Your task to perform on an android device: toggle sleep mode Image 0: 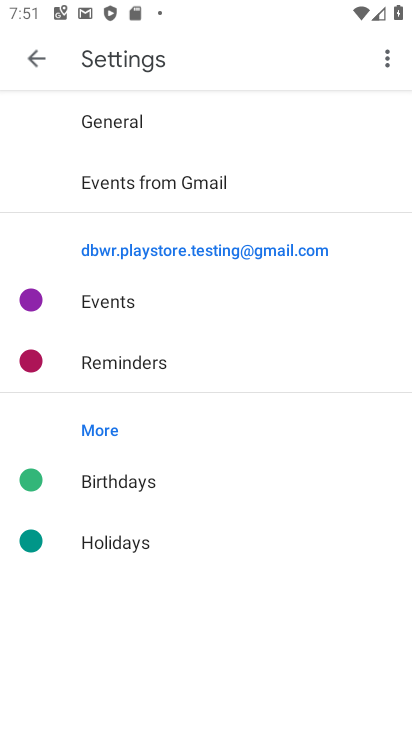
Step 0: press home button
Your task to perform on an android device: toggle sleep mode Image 1: 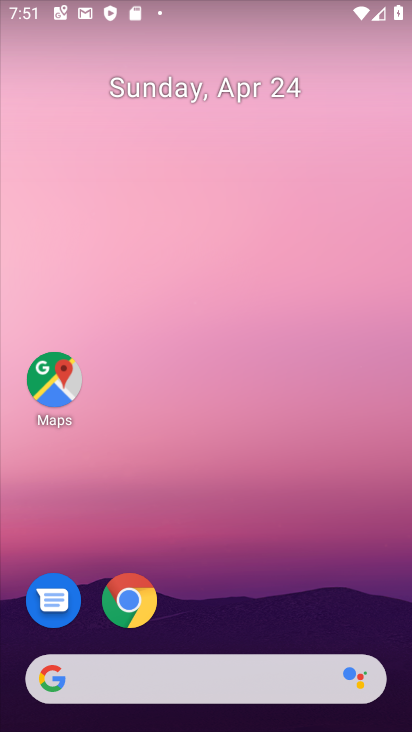
Step 1: drag from (234, 675) to (234, 157)
Your task to perform on an android device: toggle sleep mode Image 2: 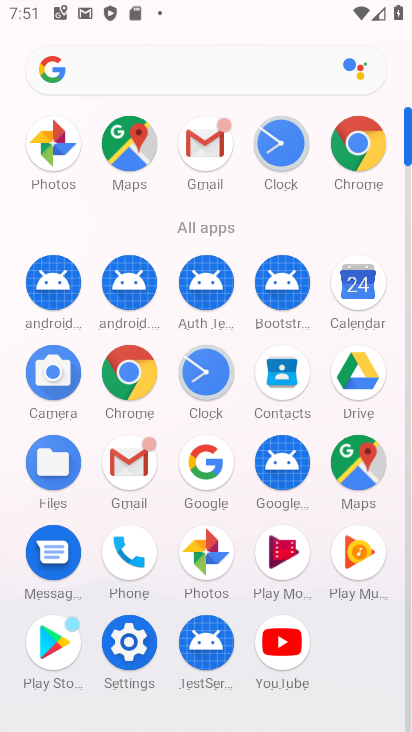
Step 2: click (133, 642)
Your task to perform on an android device: toggle sleep mode Image 3: 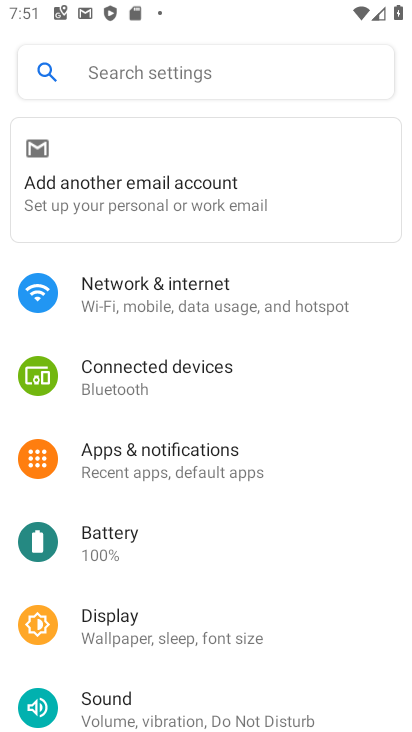
Step 3: drag from (162, 678) to (164, 411)
Your task to perform on an android device: toggle sleep mode Image 4: 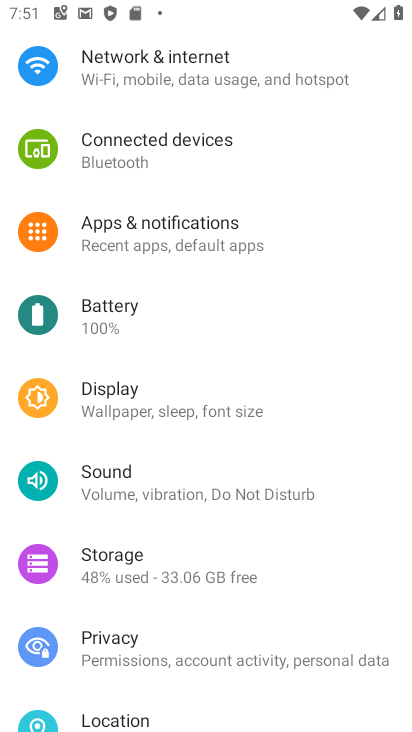
Step 4: click (131, 397)
Your task to perform on an android device: toggle sleep mode Image 5: 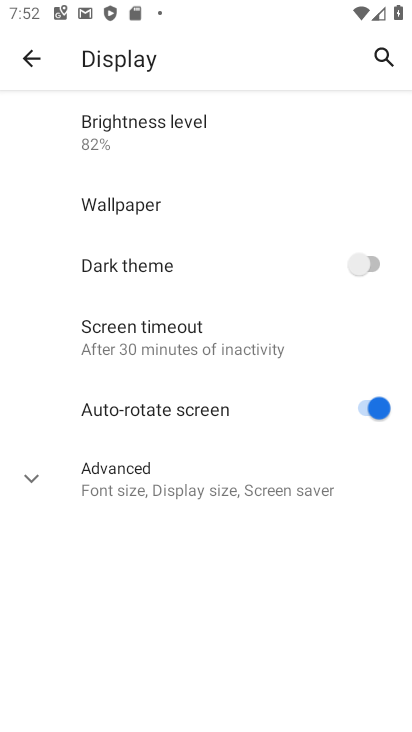
Step 5: click (29, 57)
Your task to perform on an android device: toggle sleep mode Image 6: 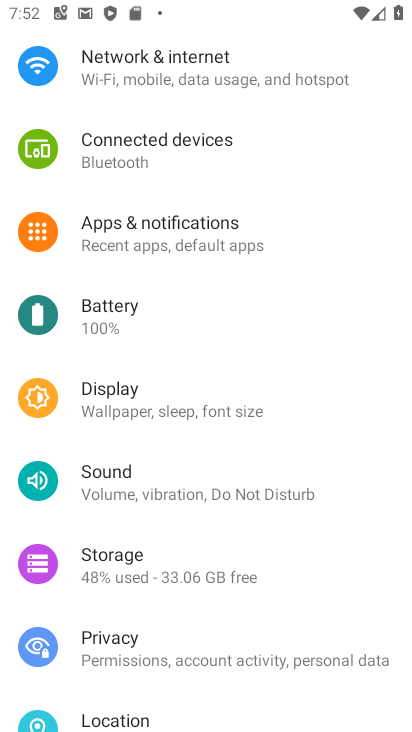
Step 6: task complete